Your task to perform on an android device: Open the calendar and show me this week's events? Image 0: 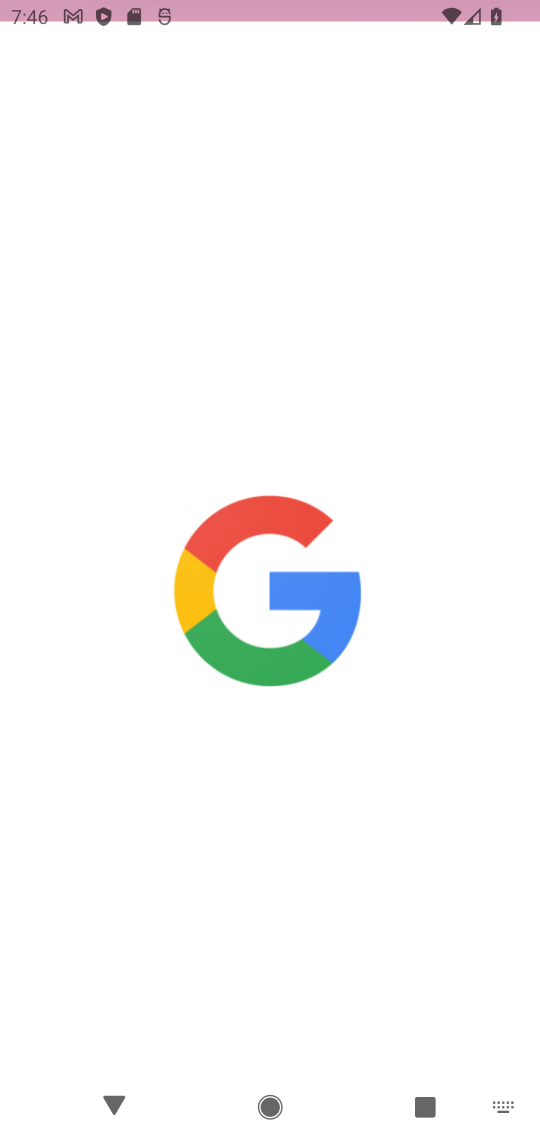
Step 0: press back button
Your task to perform on an android device: Open the calendar and show me this week's events? Image 1: 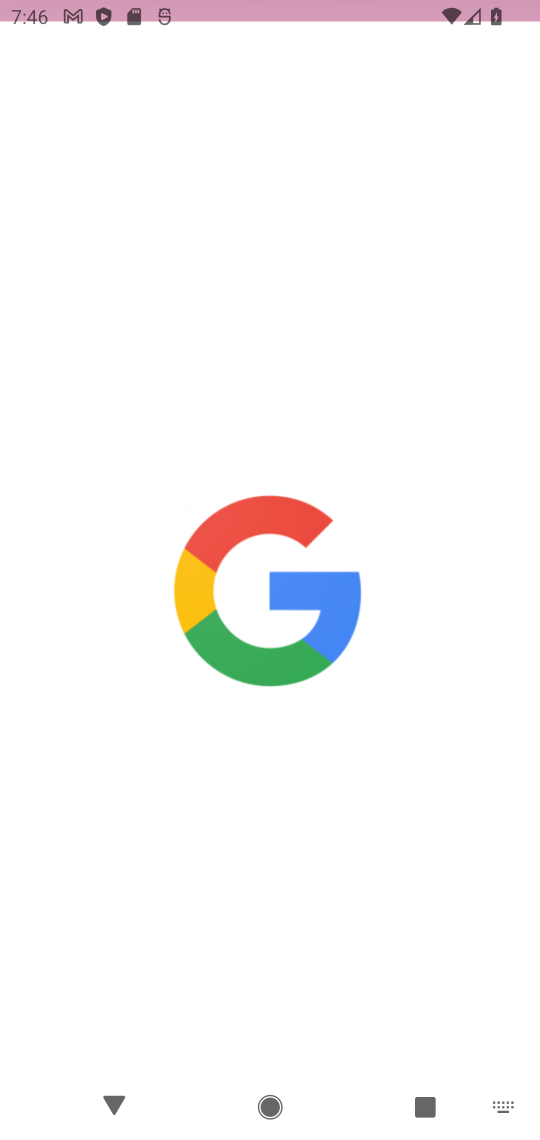
Step 1: press home button
Your task to perform on an android device: Open the calendar and show me this week's events? Image 2: 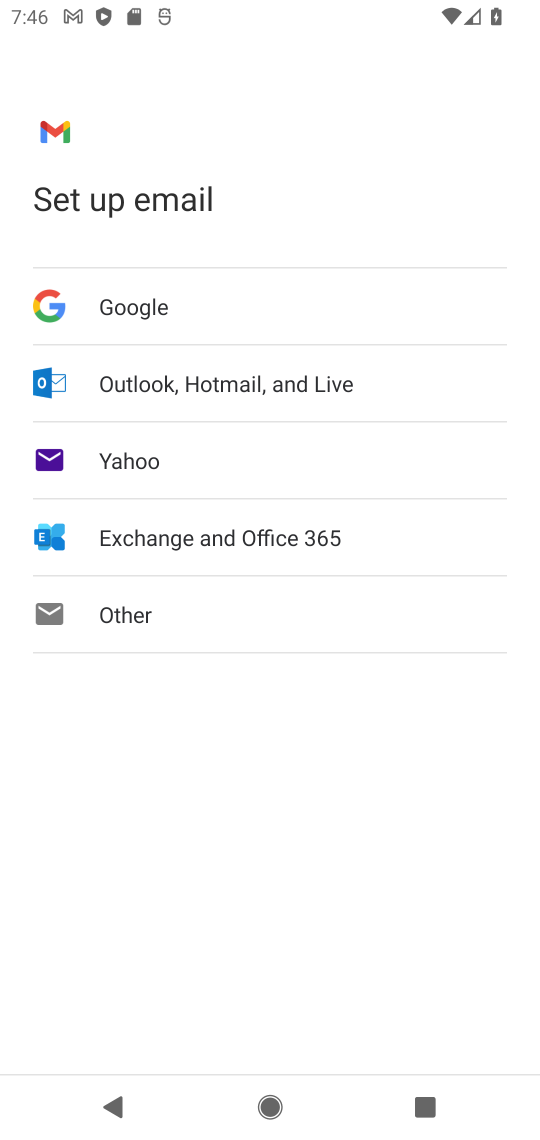
Step 2: press home button
Your task to perform on an android device: Open the calendar and show me this week's events? Image 3: 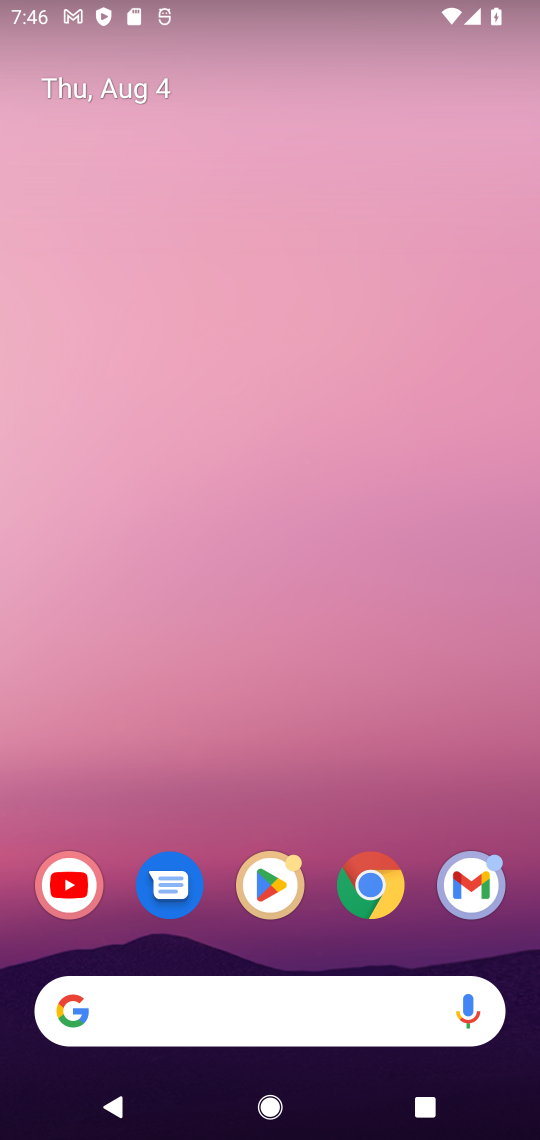
Step 3: drag from (315, 773) to (97, 37)
Your task to perform on an android device: Open the calendar and show me this week's events? Image 4: 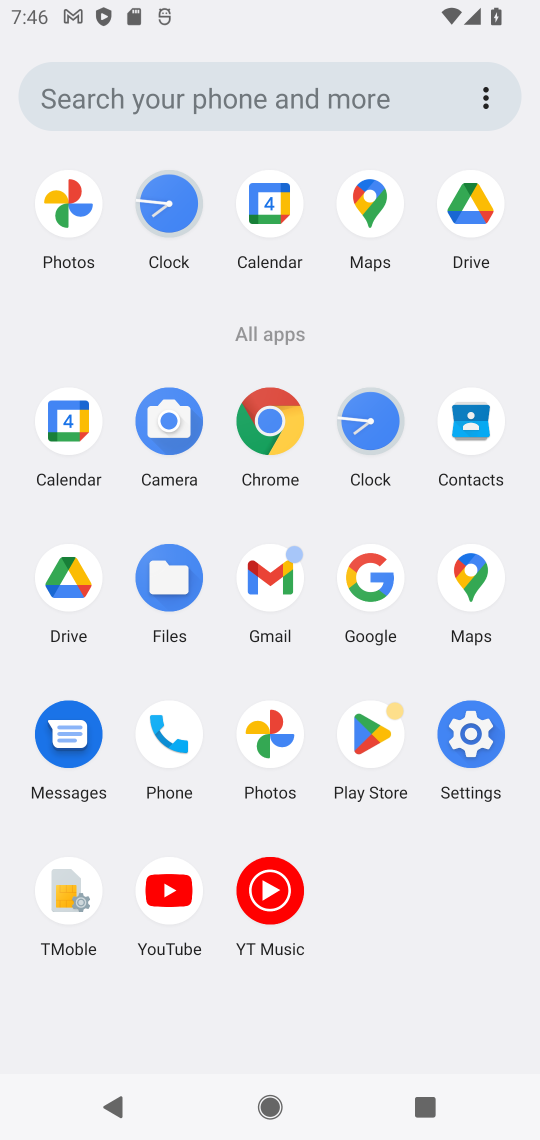
Step 4: click (281, 240)
Your task to perform on an android device: Open the calendar and show me this week's events? Image 5: 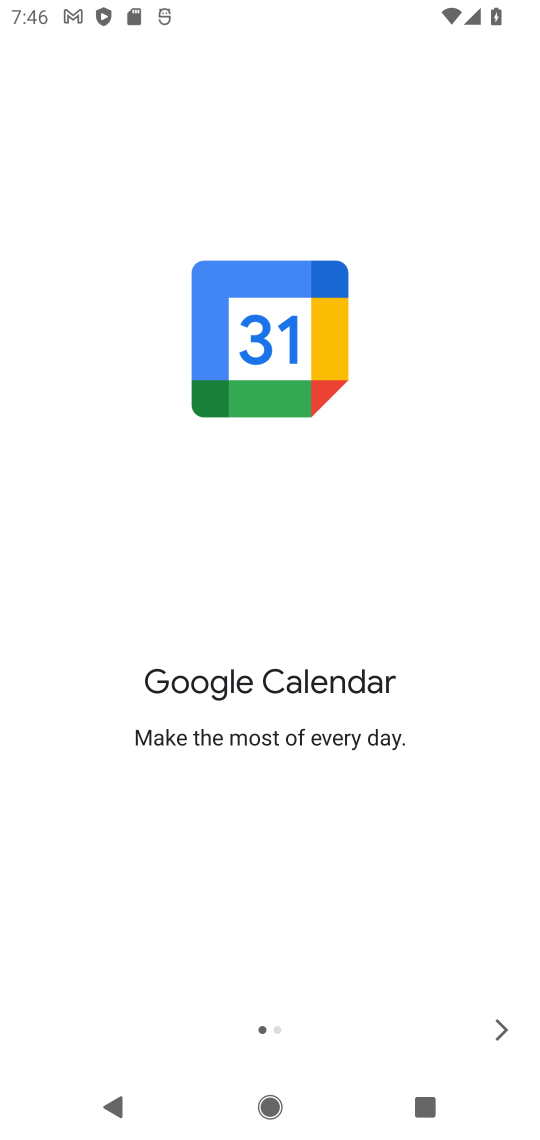
Step 5: click (520, 1039)
Your task to perform on an android device: Open the calendar and show me this week's events? Image 6: 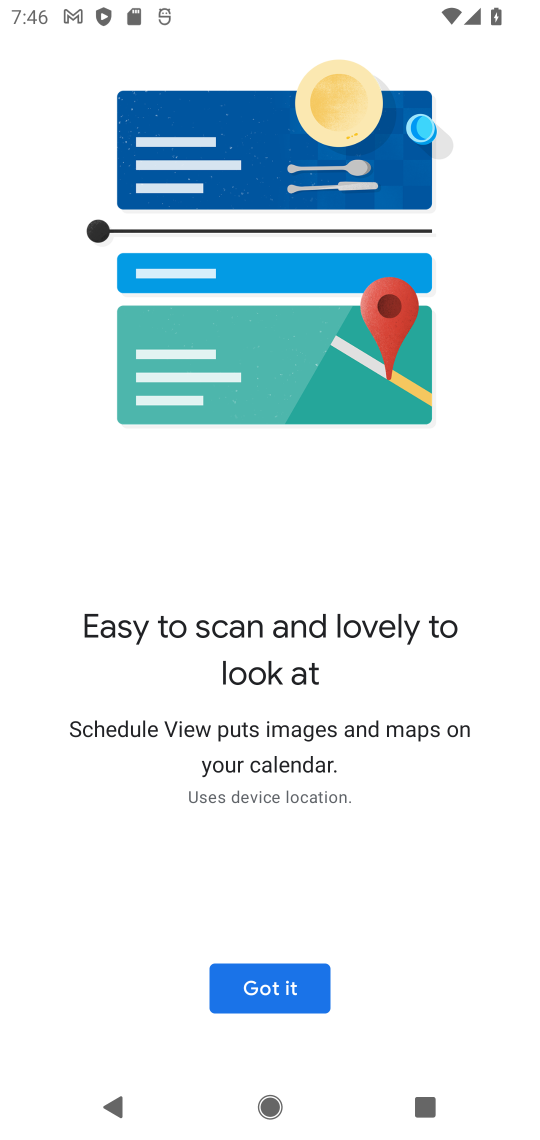
Step 6: click (520, 1039)
Your task to perform on an android device: Open the calendar and show me this week's events? Image 7: 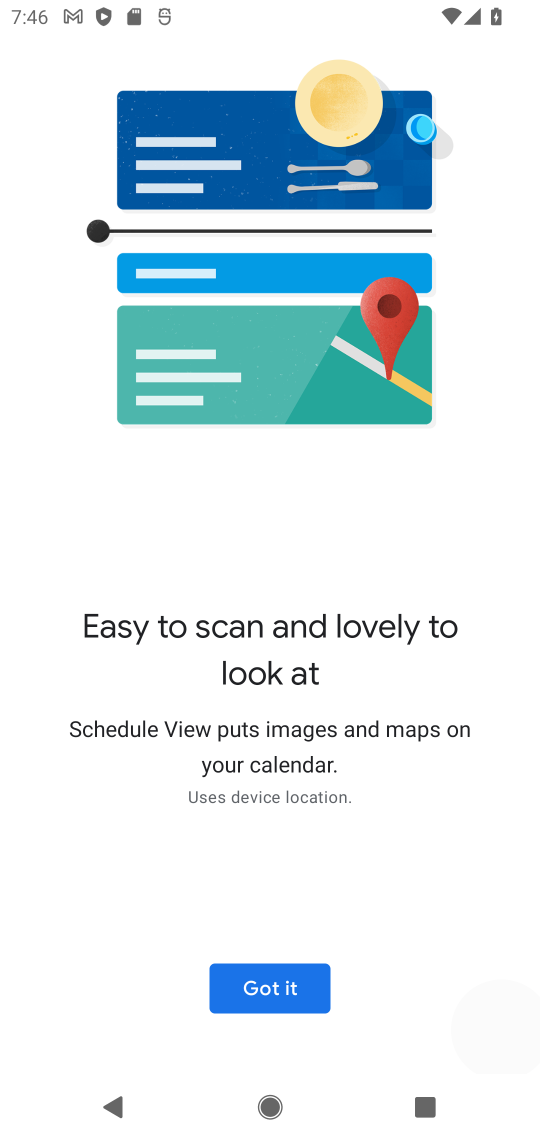
Step 7: click (219, 999)
Your task to perform on an android device: Open the calendar and show me this week's events? Image 8: 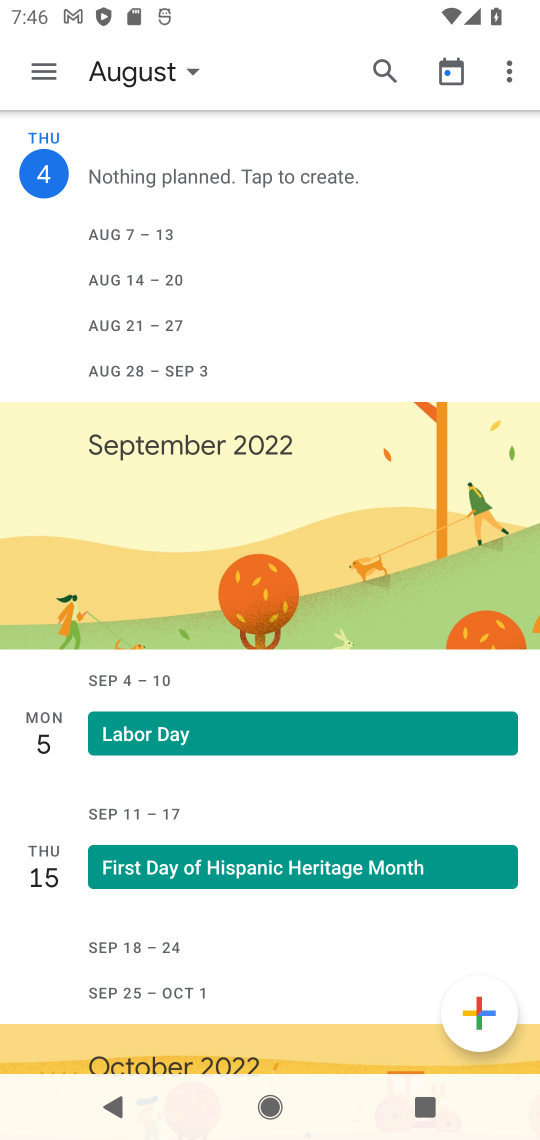
Step 8: click (183, 78)
Your task to perform on an android device: Open the calendar and show me this week's events? Image 9: 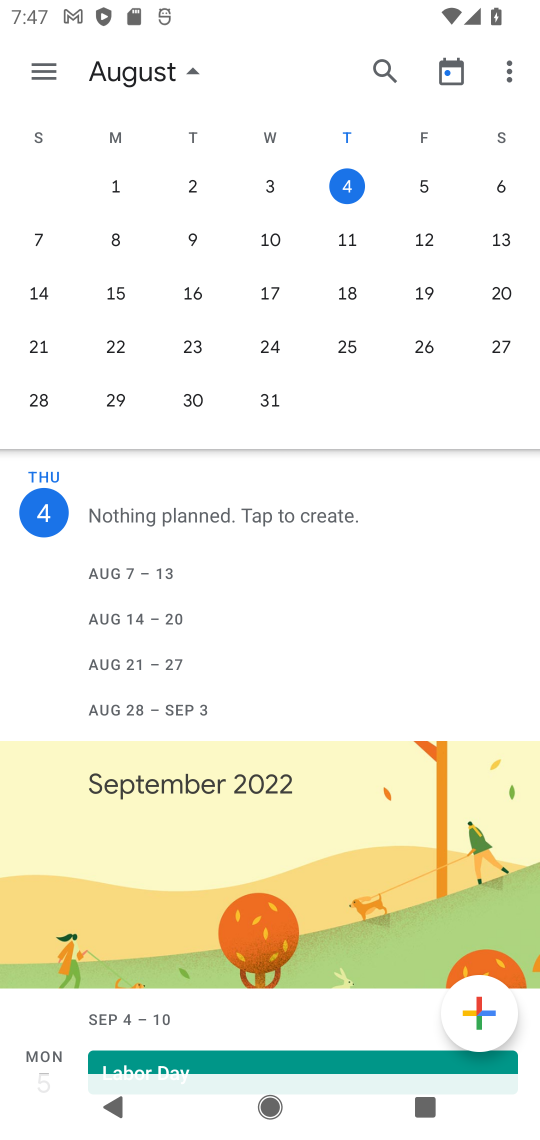
Step 9: click (429, 254)
Your task to perform on an android device: Open the calendar and show me this week's events? Image 10: 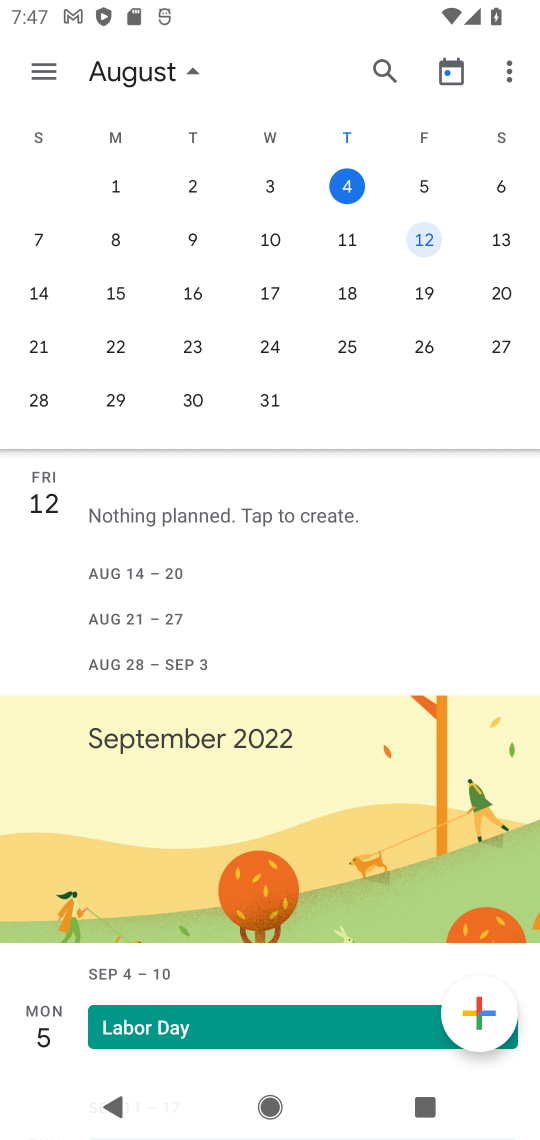
Step 10: task complete